Your task to perform on an android device: turn on javascript in the chrome app Image 0: 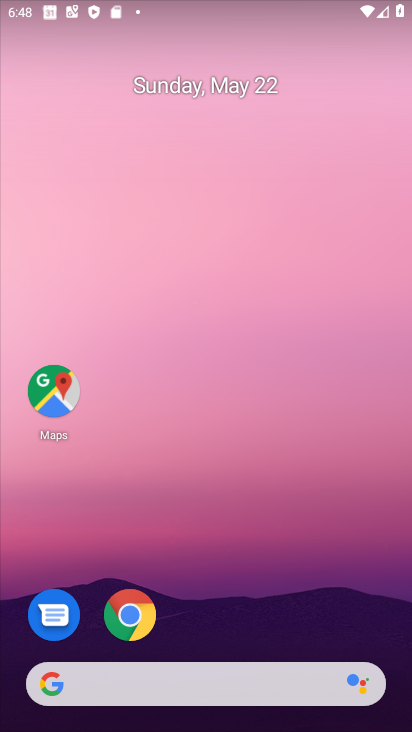
Step 0: click (131, 622)
Your task to perform on an android device: turn on javascript in the chrome app Image 1: 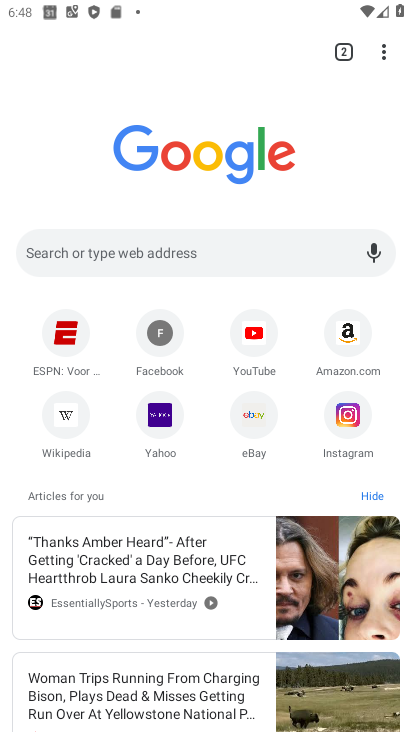
Step 1: click (382, 52)
Your task to perform on an android device: turn on javascript in the chrome app Image 2: 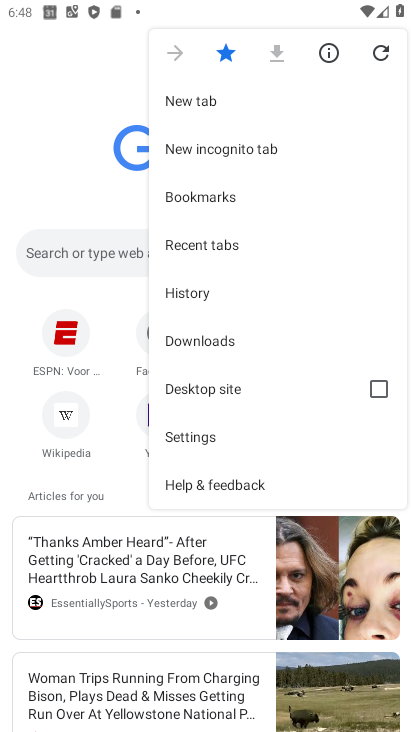
Step 2: click (206, 431)
Your task to perform on an android device: turn on javascript in the chrome app Image 3: 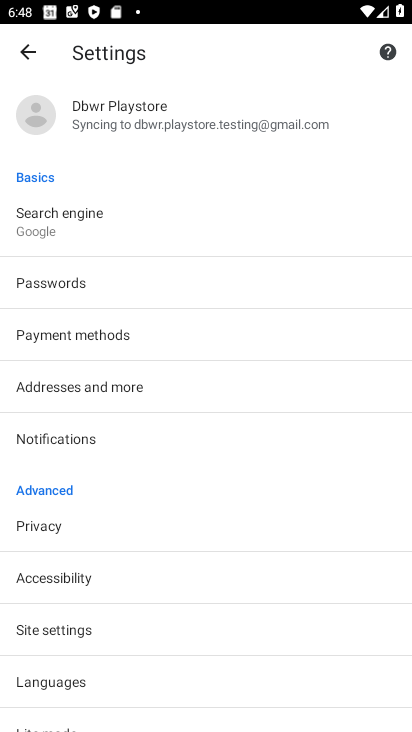
Step 3: drag from (236, 538) to (212, 230)
Your task to perform on an android device: turn on javascript in the chrome app Image 4: 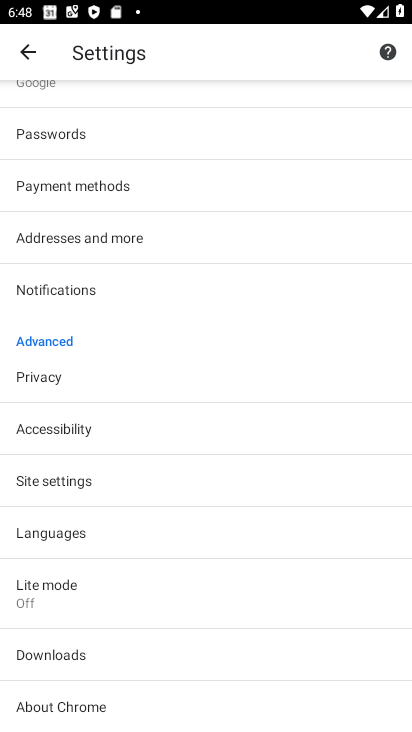
Step 4: click (78, 477)
Your task to perform on an android device: turn on javascript in the chrome app Image 5: 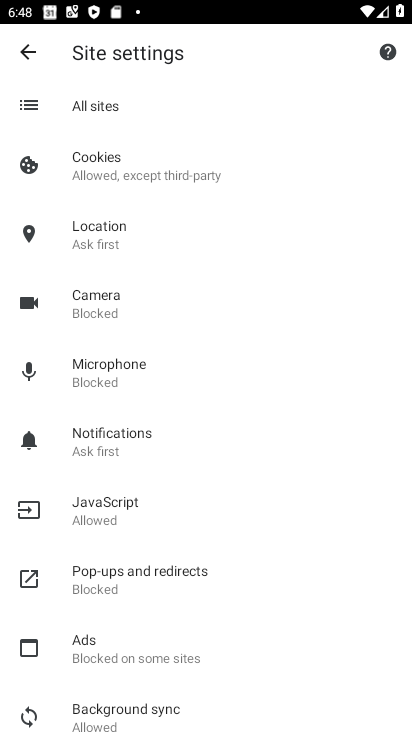
Step 5: click (109, 512)
Your task to perform on an android device: turn on javascript in the chrome app Image 6: 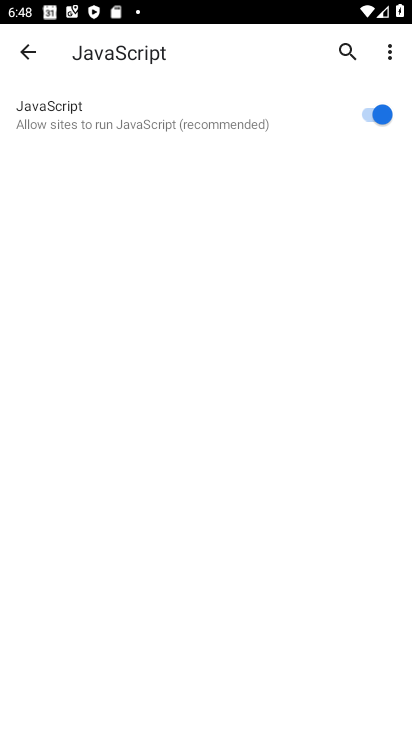
Step 6: task complete